Your task to perform on an android device: Is it going to rain tomorrow? Image 0: 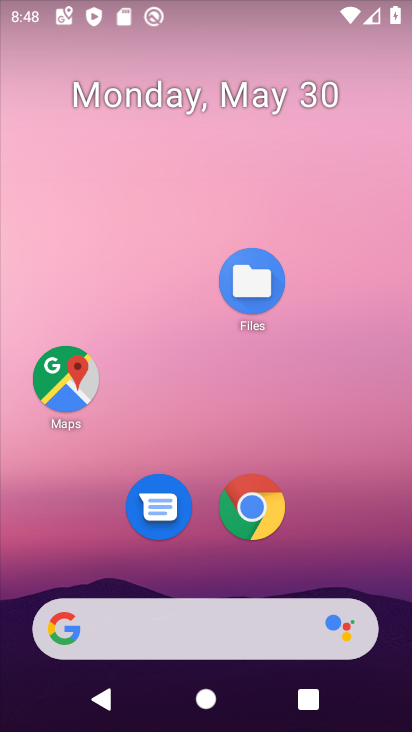
Step 0: click (338, 467)
Your task to perform on an android device: Is it going to rain tomorrow? Image 1: 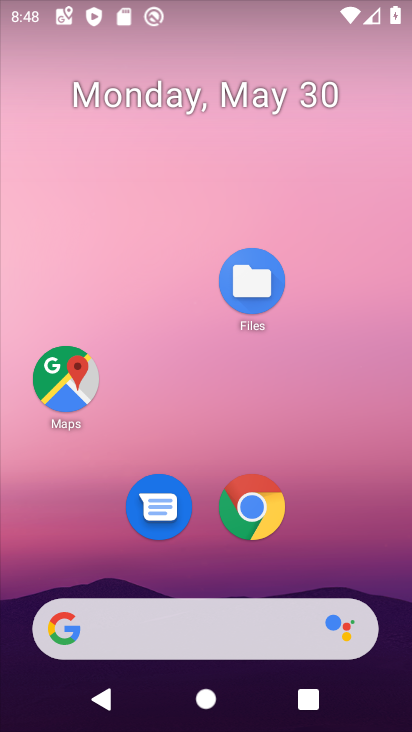
Step 1: click (166, 634)
Your task to perform on an android device: Is it going to rain tomorrow? Image 2: 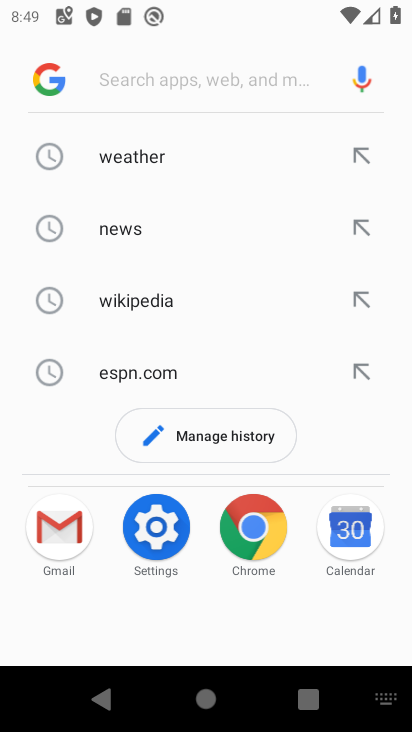
Step 2: click (130, 156)
Your task to perform on an android device: Is it going to rain tomorrow? Image 3: 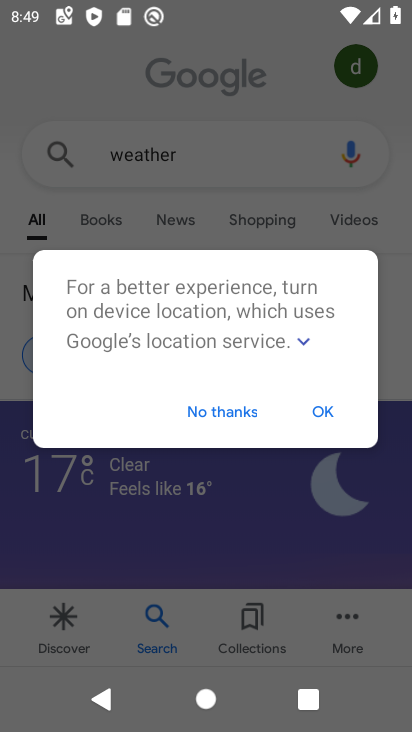
Step 3: click (322, 413)
Your task to perform on an android device: Is it going to rain tomorrow? Image 4: 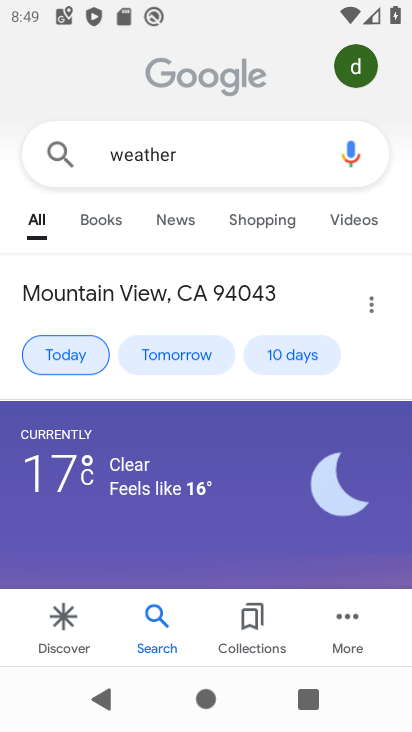
Step 4: click (170, 357)
Your task to perform on an android device: Is it going to rain tomorrow? Image 5: 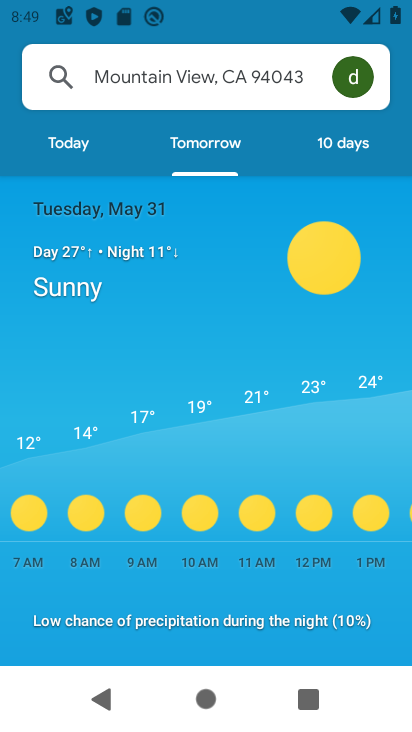
Step 5: task complete